Your task to perform on an android device: find which apps use the phone's location Image 0: 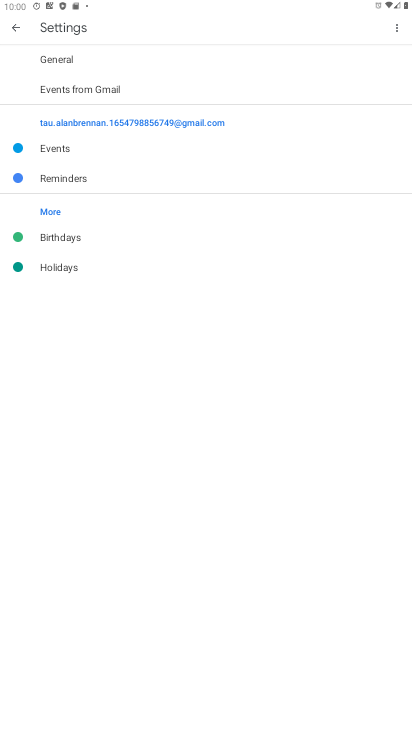
Step 0: press home button
Your task to perform on an android device: find which apps use the phone's location Image 1: 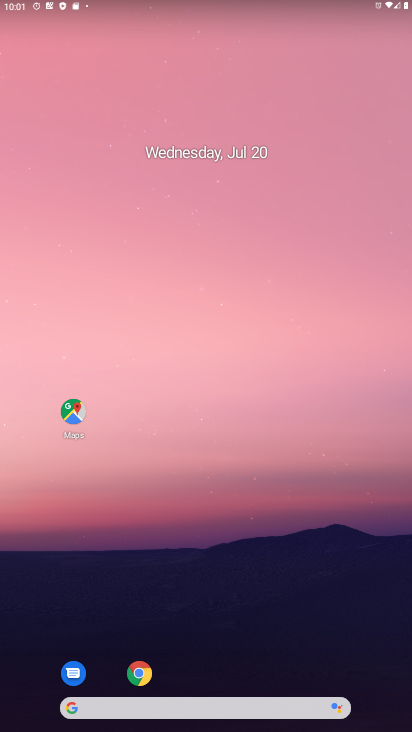
Step 1: drag from (217, 703) to (186, 201)
Your task to perform on an android device: find which apps use the phone's location Image 2: 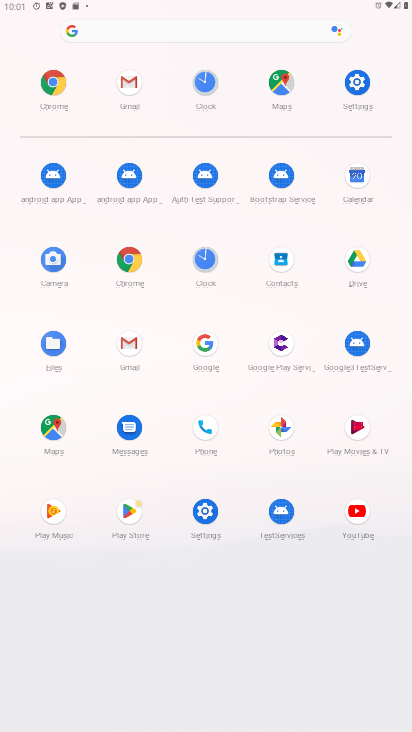
Step 2: click (352, 86)
Your task to perform on an android device: find which apps use the phone's location Image 3: 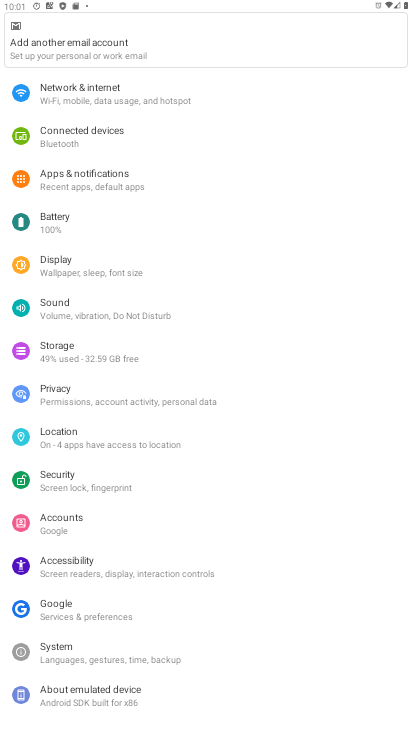
Step 3: click (55, 440)
Your task to perform on an android device: find which apps use the phone's location Image 4: 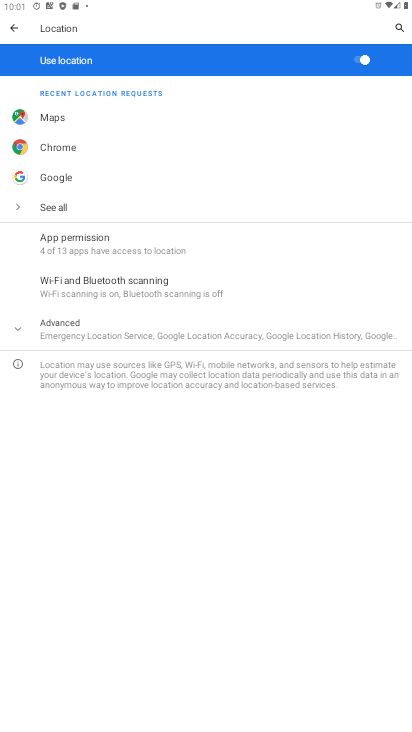
Step 4: click (82, 241)
Your task to perform on an android device: find which apps use the phone's location Image 5: 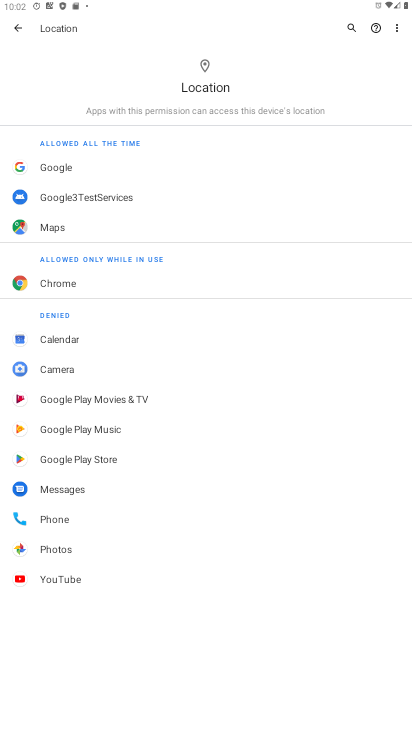
Step 5: task complete